Your task to perform on an android device: turn on the 12-hour format for clock Image 0: 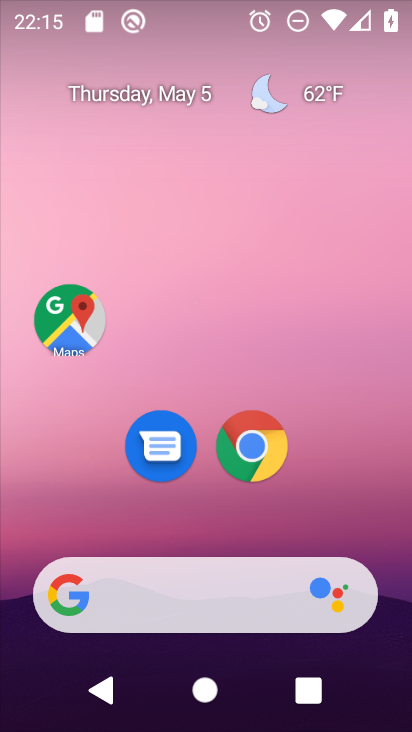
Step 0: drag from (204, 632) to (258, 177)
Your task to perform on an android device: turn on the 12-hour format for clock Image 1: 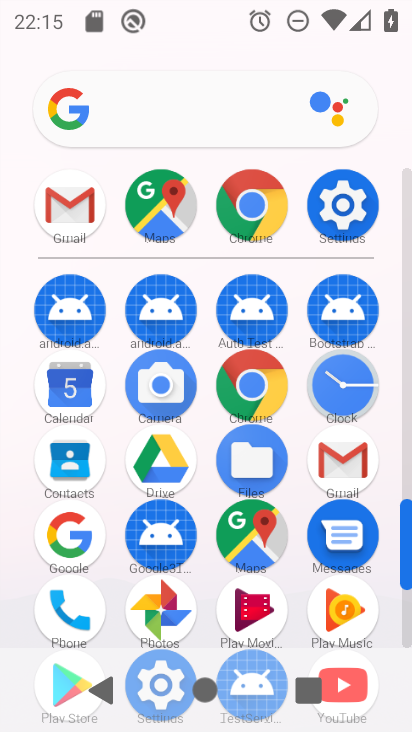
Step 1: click (336, 380)
Your task to perform on an android device: turn on the 12-hour format for clock Image 2: 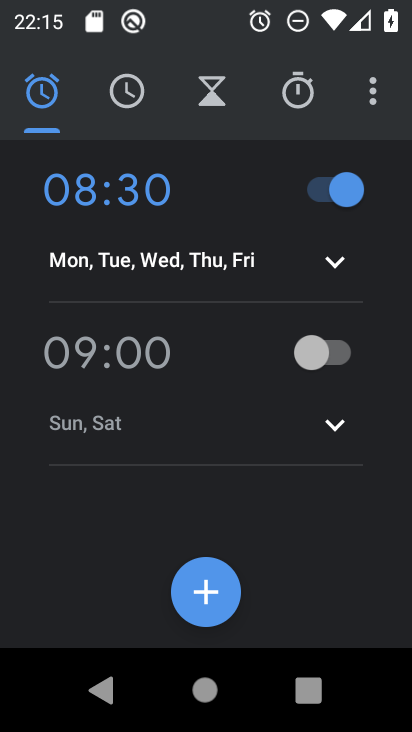
Step 2: click (391, 89)
Your task to perform on an android device: turn on the 12-hour format for clock Image 3: 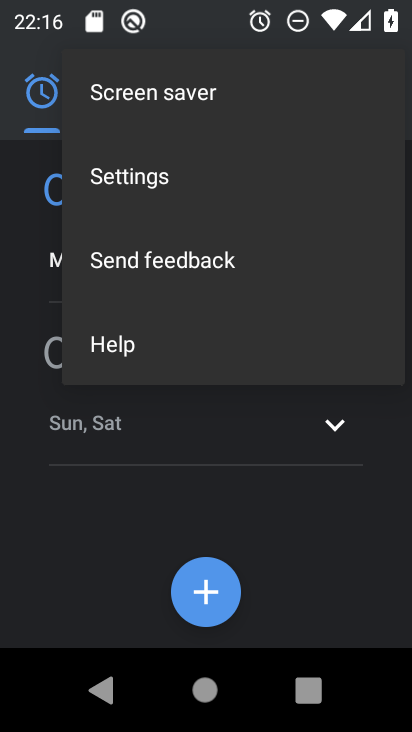
Step 3: click (173, 198)
Your task to perform on an android device: turn on the 12-hour format for clock Image 4: 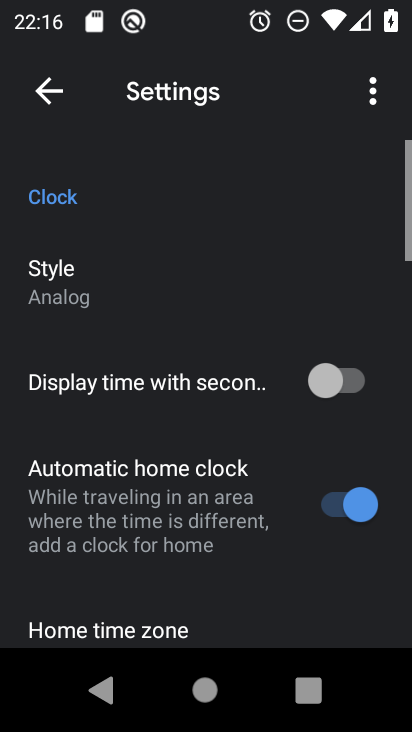
Step 4: drag from (176, 550) to (243, 269)
Your task to perform on an android device: turn on the 12-hour format for clock Image 5: 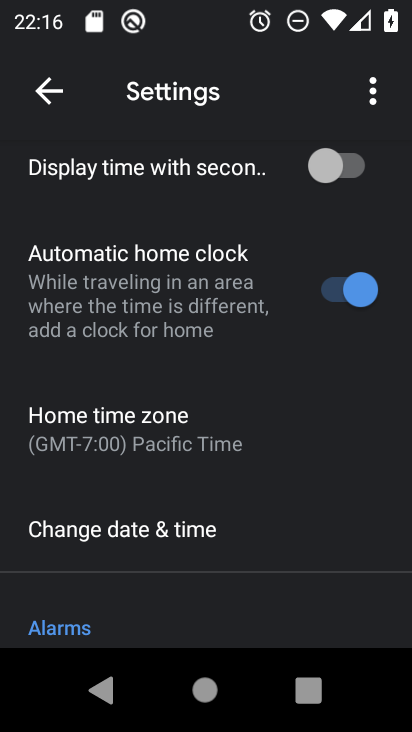
Step 5: click (183, 518)
Your task to perform on an android device: turn on the 12-hour format for clock Image 6: 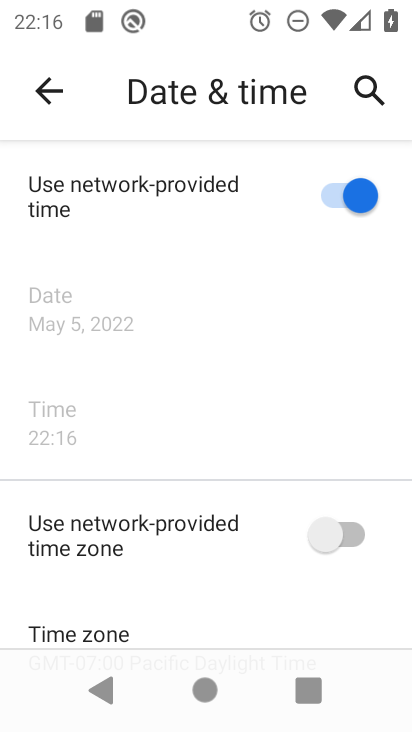
Step 6: drag from (200, 541) to (293, 209)
Your task to perform on an android device: turn on the 12-hour format for clock Image 7: 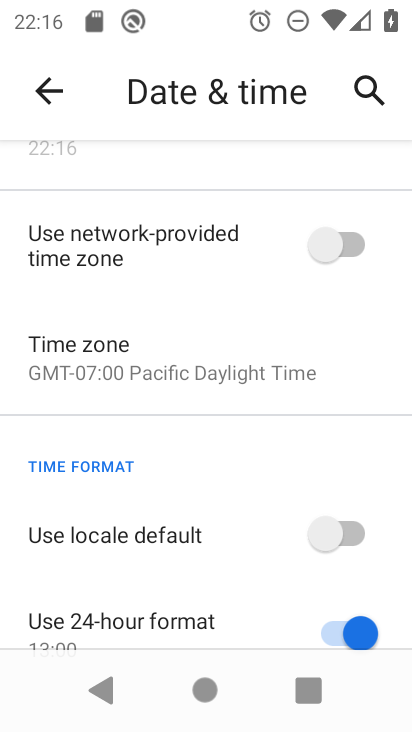
Step 7: drag from (242, 464) to (265, 371)
Your task to perform on an android device: turn on the 12-hour format for clock Image 8: 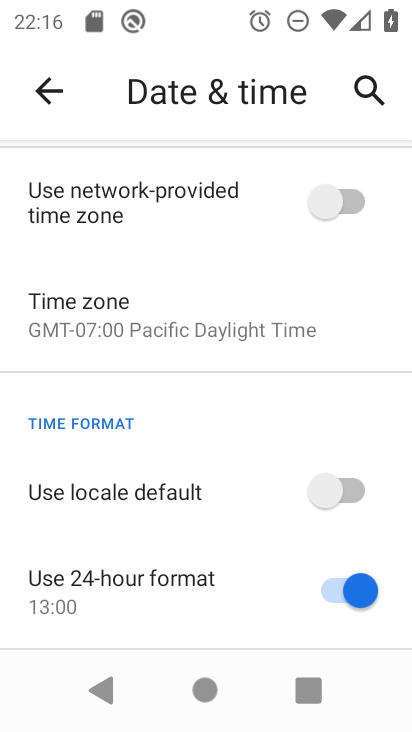
Step 8: click (316, 594)
Your task to perform on an android device: turn on the 12-hour format for clock Image 9: 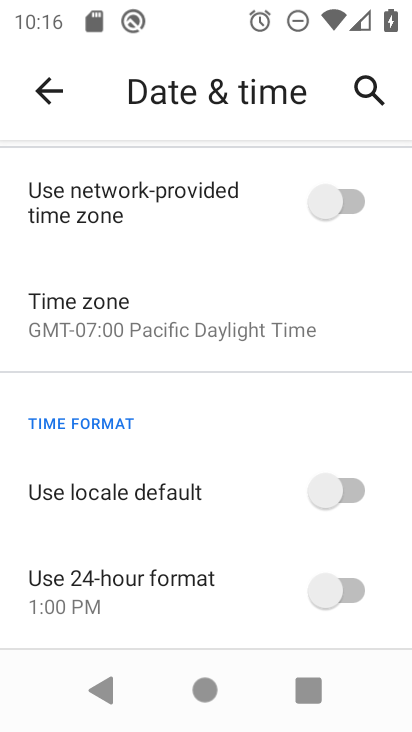
Step 9: task complete